Your task to perform on an android device: What is the recent news? Image 0: 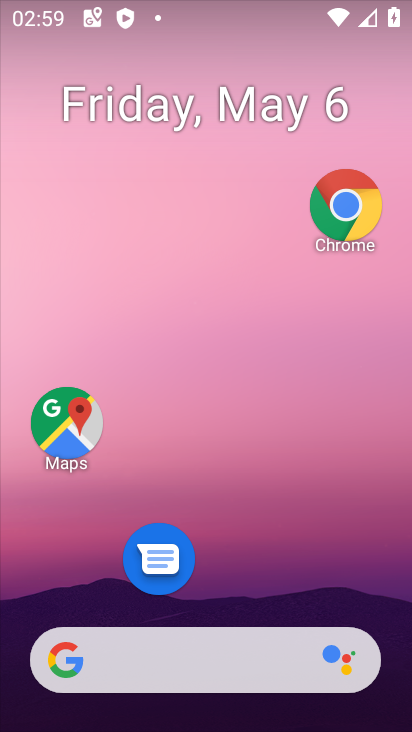
Step 0: drag from (181, 673) to (203, 620)
Your task to perform on an android device: What is the recent news? Image 1: 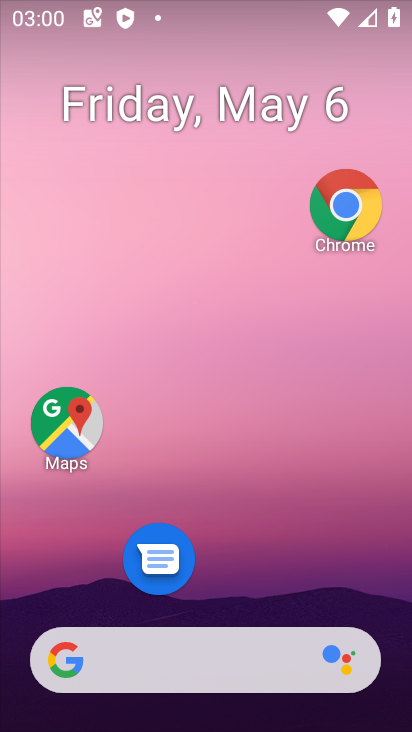
Step 1: click (54, 666)
Your task to perform on an android device: What is the recent news? Image 2: 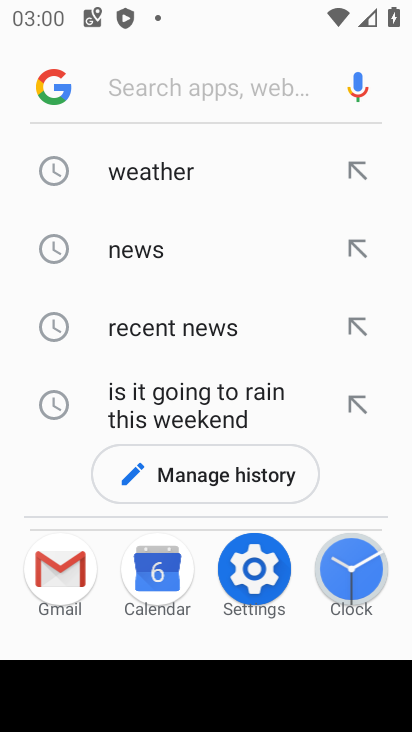
Step 2: click (156, 175)
Your task to perform on an android device: What is the recent news? Image 3: 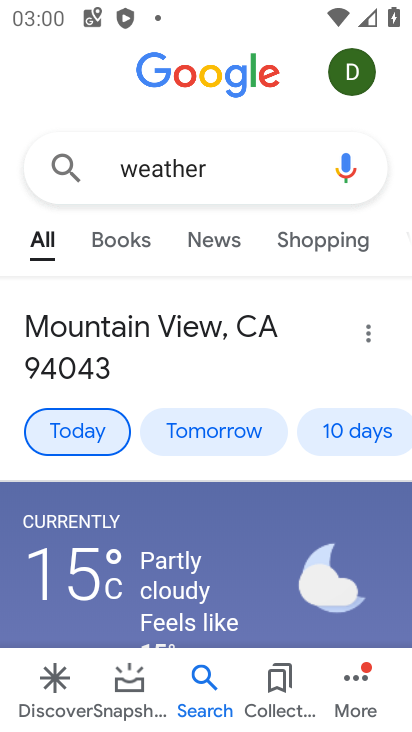
Step 3: click (217, 243)
Your task to perform on an android device: What is the recent news? Image 4: 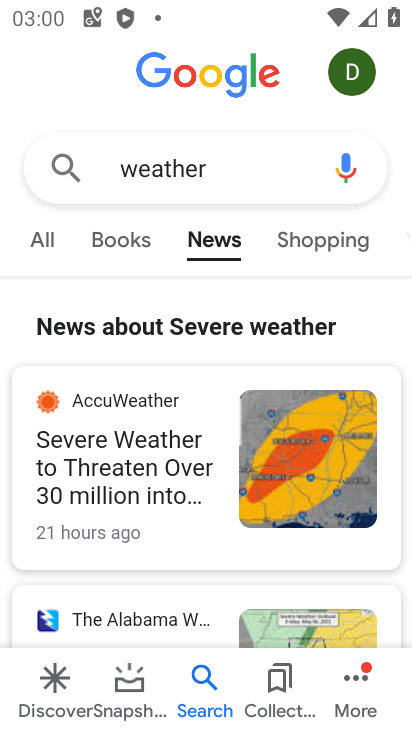
Step 4: task complete